Your task to perform on an android device: Is it going to rain this weekend? Image 0: 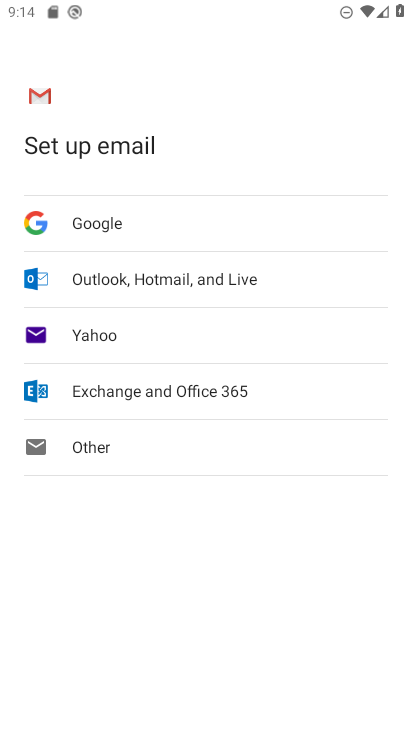
Step 0: press home button
Your task to perform on an android device: Is it going to rain this weekend? Image 1: 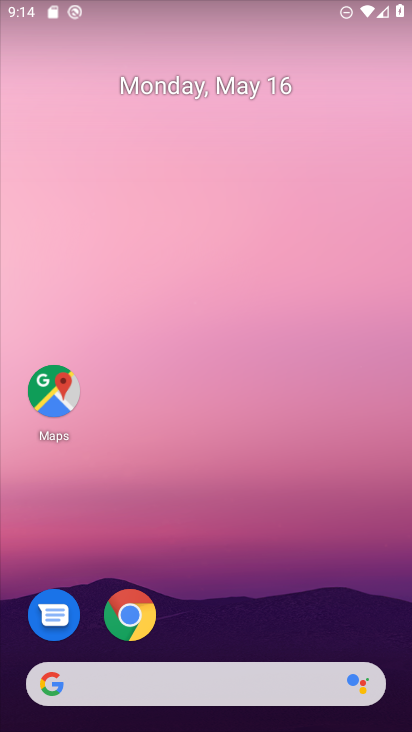
Step 1: click (215, 688)
Your task to perform on an android device: Is it going to rain this weekend? Image 2: 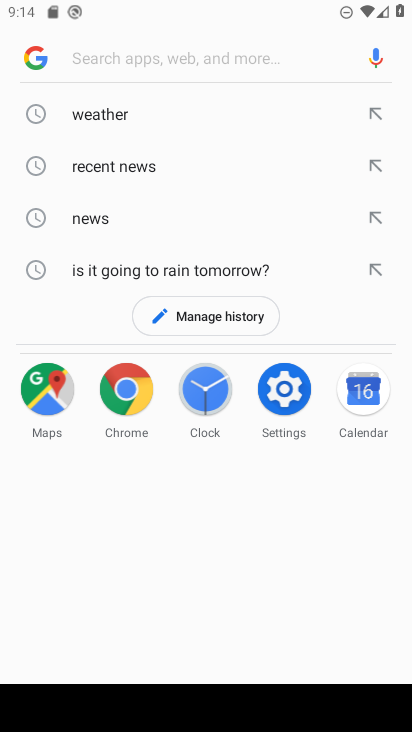
Step 2: click (138, 110)
Your task to perform on an android device: Is it going to rain this weekend? Image 3: 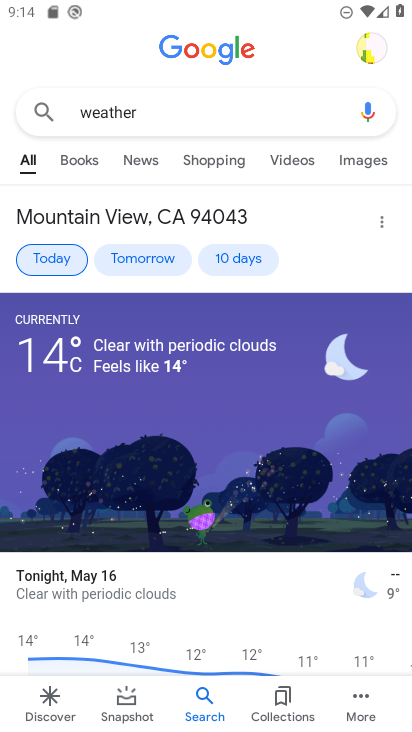
Step 3: click (218, 264)
Your task to perform on an android device: Is it going to rain this weekend? Image 4: 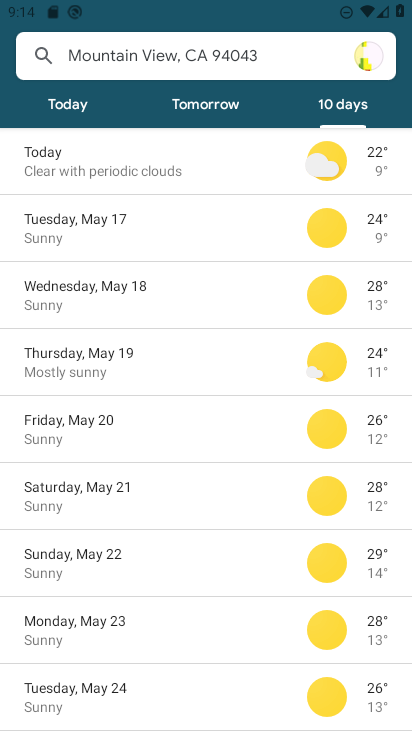
Step 4: task complete